Your task to perform on an android device: turn smart compose on in the gmail app Image 0: 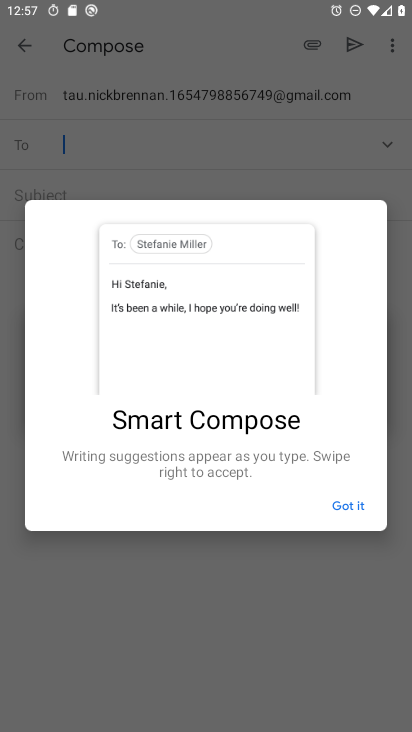
Step 0: press home button
Your task to perform on an android device: turn smart compose on in the gmail app Image 1: 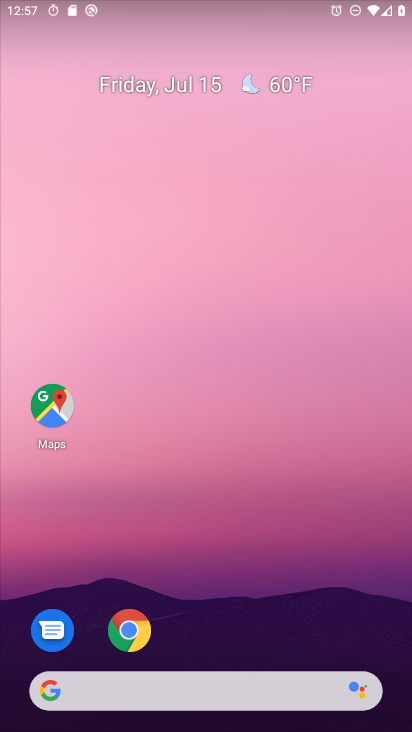
Step 1: drag from (236, 509) to (240, 164)
Your task to perform on an android device: turn smart compose on in the gmail app Image 2: 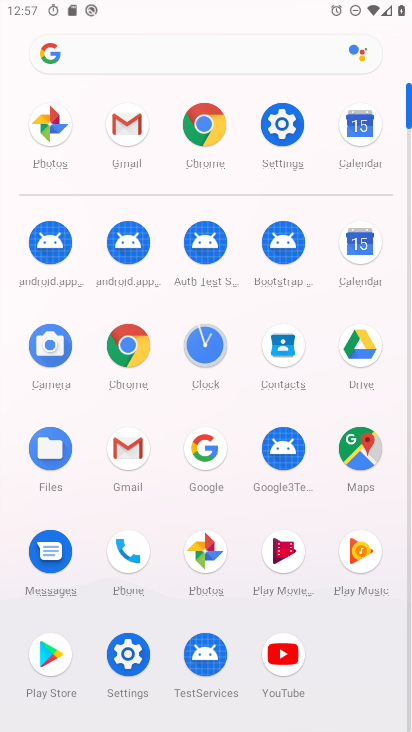
Step 2: click (127, 125)
Your task to perform on an android device: turn smart compose on in the gmail app Image 3: 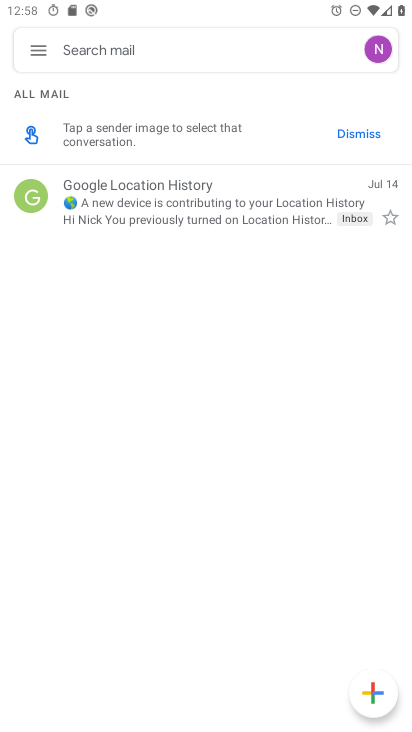
Step 3: click (36, 52)
Your task to perform on an android device: turn smart compose on in the gmail app Image 4: 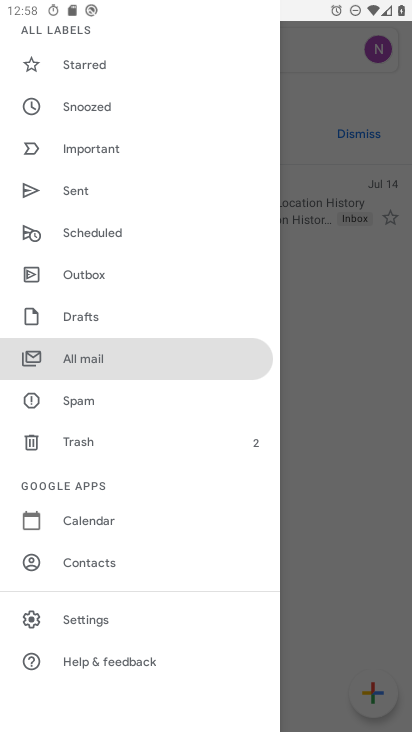
Step 4: click (78, 619)
Your task to perform on an android device: turn smart compose on in the gmail app Image 5: 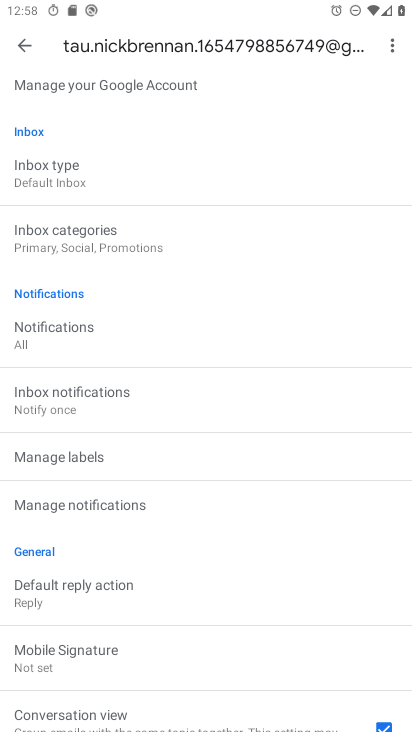
Step 5: drag from (130, 568) to (149, 275)
Your task to perform on an android device: turn smart compose on in the gmail app Image 6: 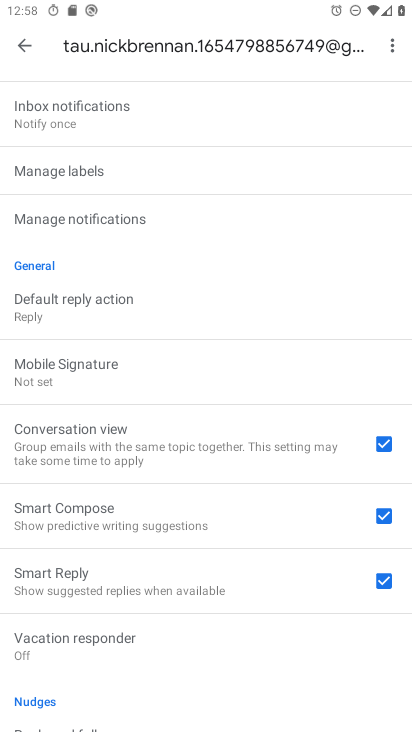
Step 6: click (378, 510)
Your task to perform on an android device: turn smart compose on in the gmail app Image 7: 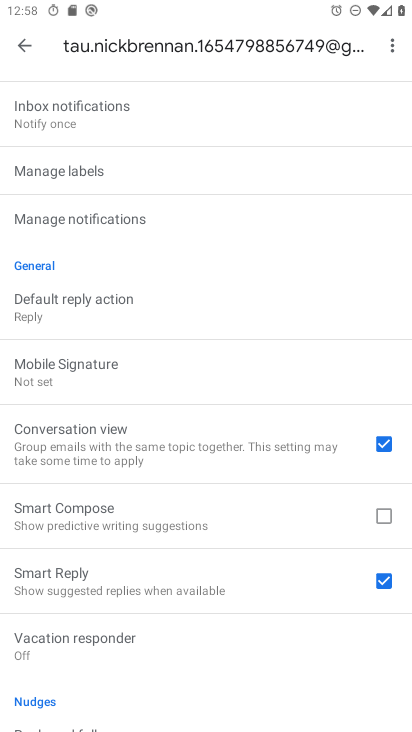
Step 7: drag from (177, 446) to (150, 587)
Your task to perform on an android device: turn smart compose on in the gmail app Image 8: 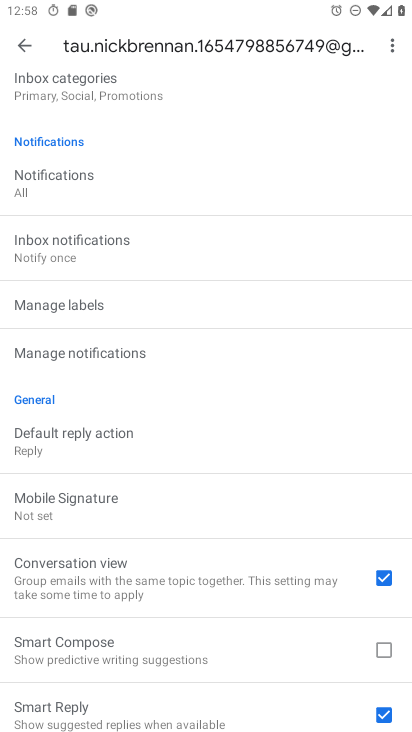
Step 8: drag from (150, 558) to (157, 328)
Your task to perform on an android device: turn smart compose on in the gmail app Image 9: 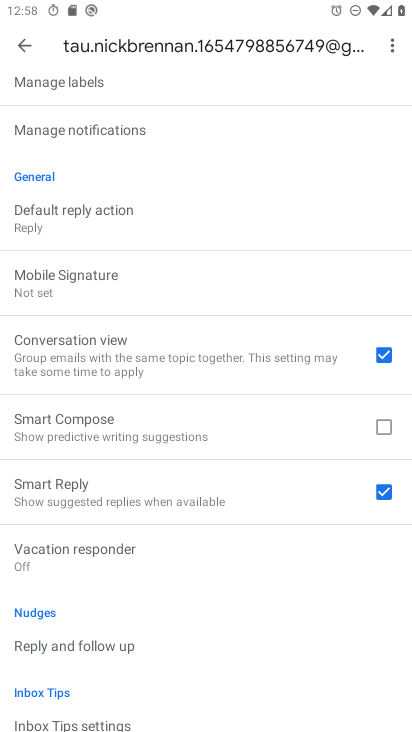
Step 9: click (387, 419)
Your task to perform on an android device: turn smart compose on in the gmail app Image 10: 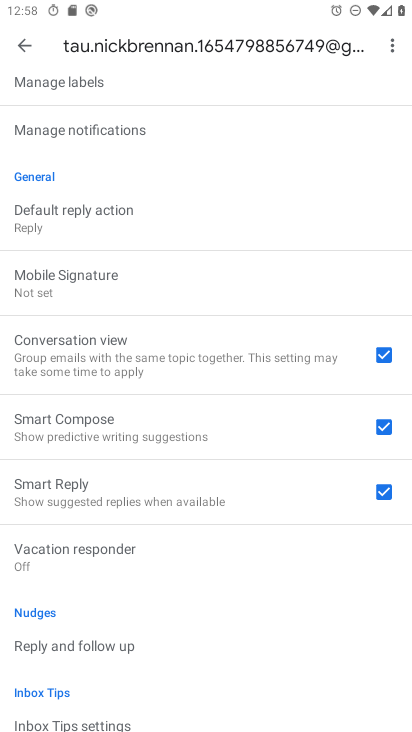
Step 10: press home button
Your task to perform on an android device: turn smart compose on in the gmail app Image 11: 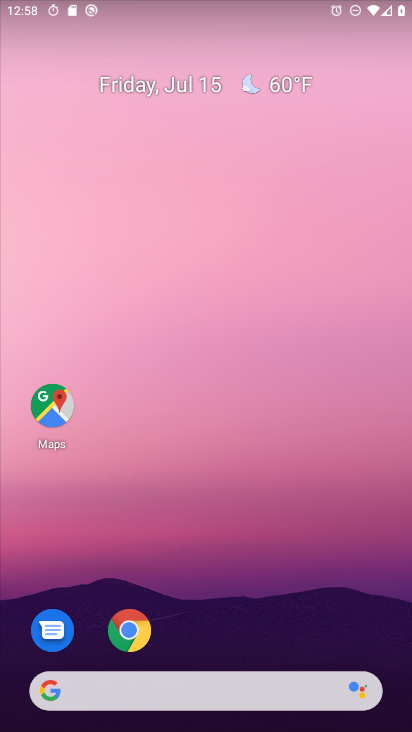
Step 11: drag from (180, 588) to (137, 0)
Your task to perform on an android device: turn smart compose on in the gmail app Image 12: 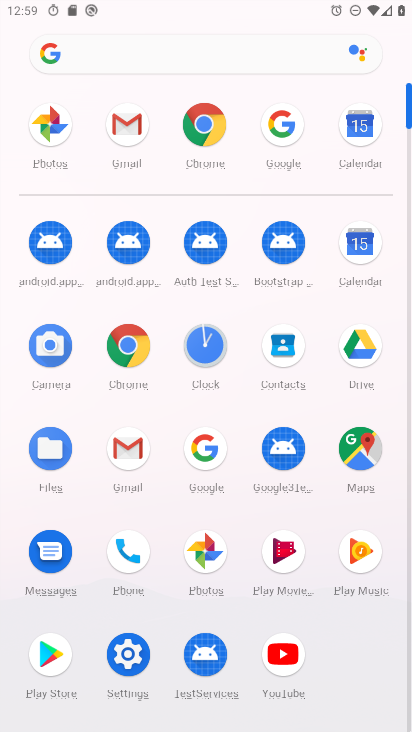
Step 12: click (130, 136)
Your task to perform on an android device: turn smart compose on in the gmail app Image 13: 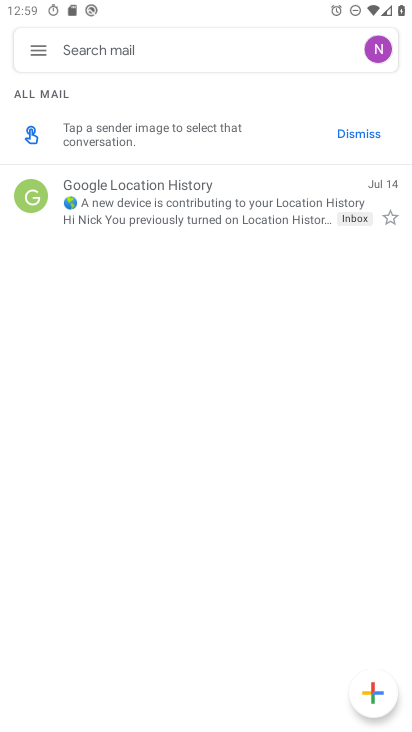
Step 13: click (35, 50)
Your task to perform on an android device: turn smart compose on in the gmail app Image 14: 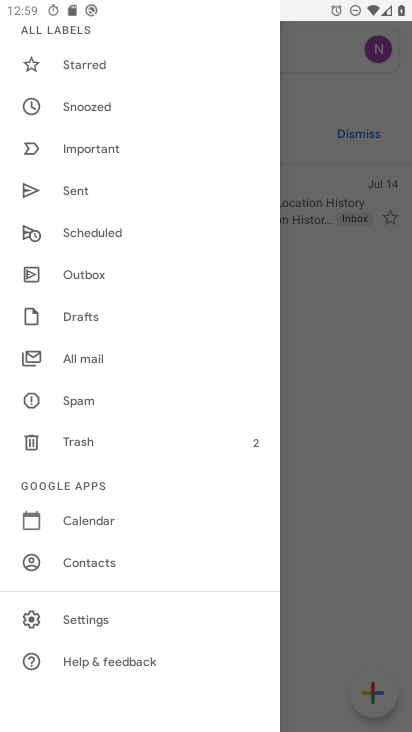
Step 14: click (99, 622)
Your task to perform on an android device: turn smart compose on in the gmail app Image 15: 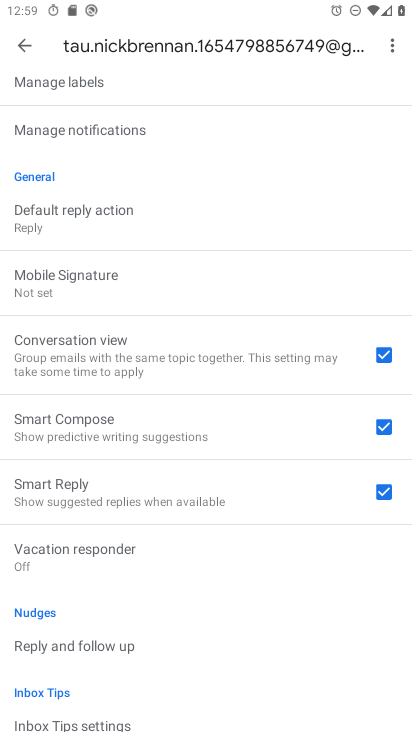
Step 15: task complete